Your task to perform on an android device: turn off smart reply in the gmail app Image 0: 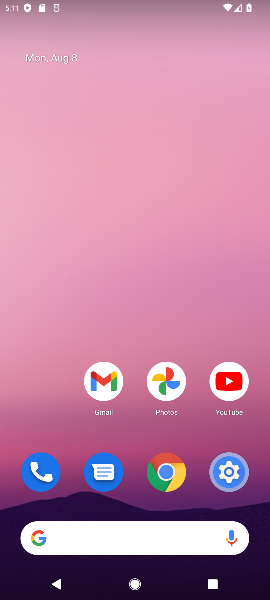
Step 0: press home button
Your task to perform on an android device: turn off smart reply in the gmail app Image 1: 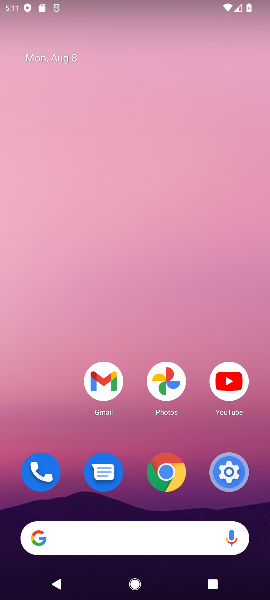
Step 1: click (102, 383)
Your task to perform on an android device: turn off smart reply in the gmail app Image 2: 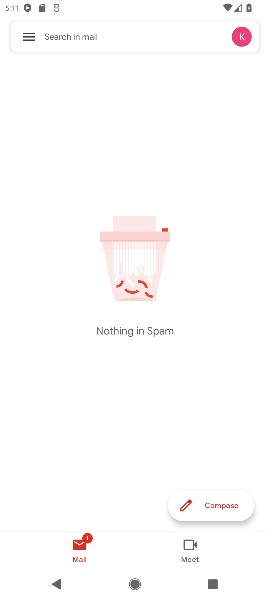
Step 2: click (31, 37)
Your task to perform on an android device: turn off smart reply in the gmail app Image 3: 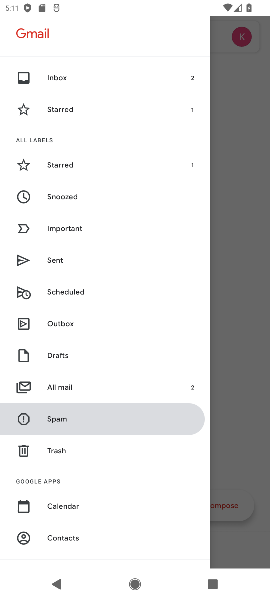
Step 3: drag from (69, 479) to (69, 295)
Your task to perform on an android device: turn off smart reply in the gmail app Image 4: 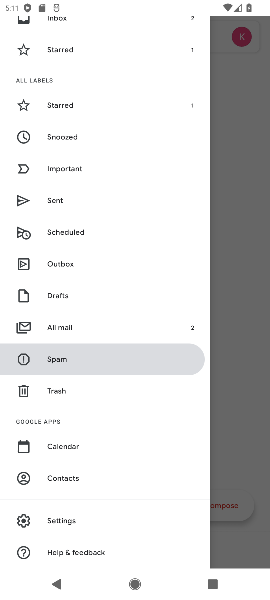
Step 4: click (61, 523)
Your task to perform on an android device: turn off smart reply in the gmail app Image 5: 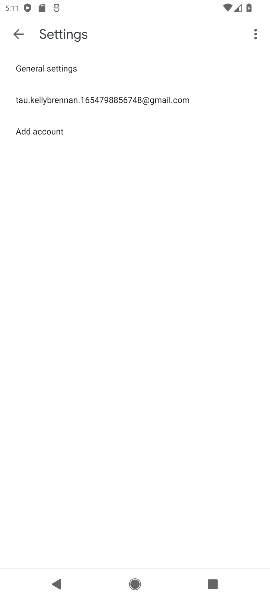
Step 5: click (66, 102)
Your task to perform on an android device: turn off smart reply in the gmail app Image 6: 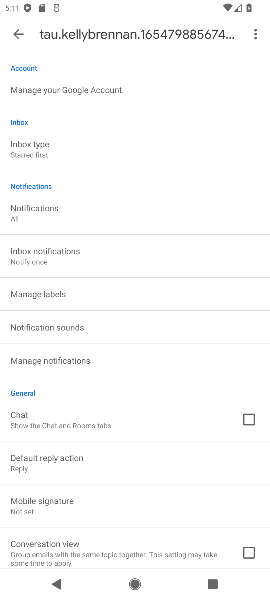
Step 6: drag from (93, 183) to (92, 54)
Your task to perform on an android device: turn off smart reply in the gmail app Image 7: 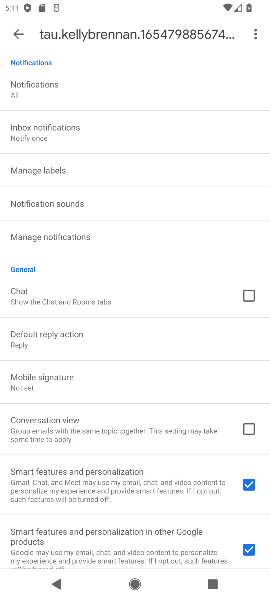
Step 7: drag from (109, 272) to (108, 74)
Your task to perform on an android device: turn off smart reply in the gmail app Image 8: 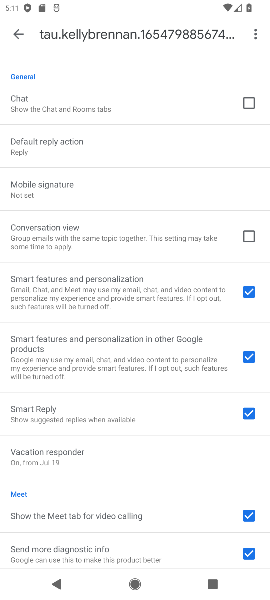
Step 8: click (247, 417)
Your task to perform on an android device: turn off smart reply in the gmail app Image 9: 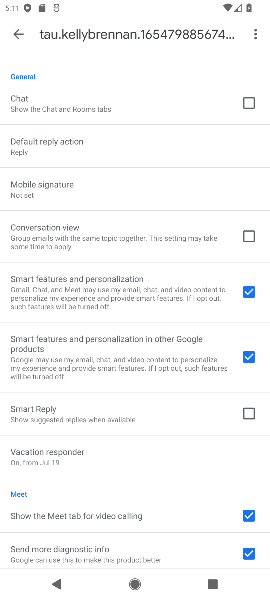
Step 9: task complete